Your task to perform on an android device: Open calendar and show me the first week of next month Image 0: 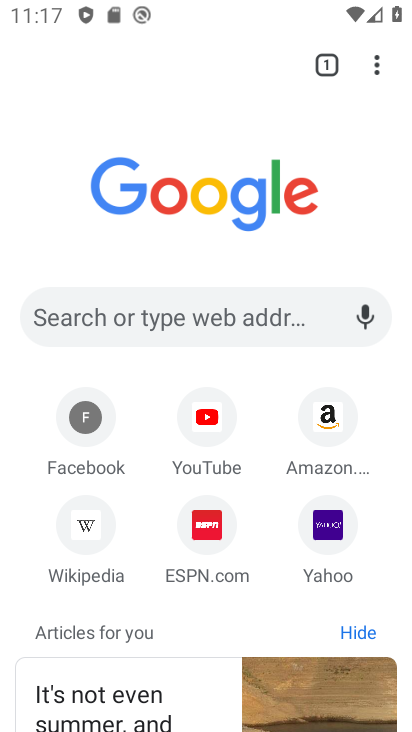
Step 0: press home button
Your task to perform on an android device: Open calendar and show me the first week of next month Image 1: 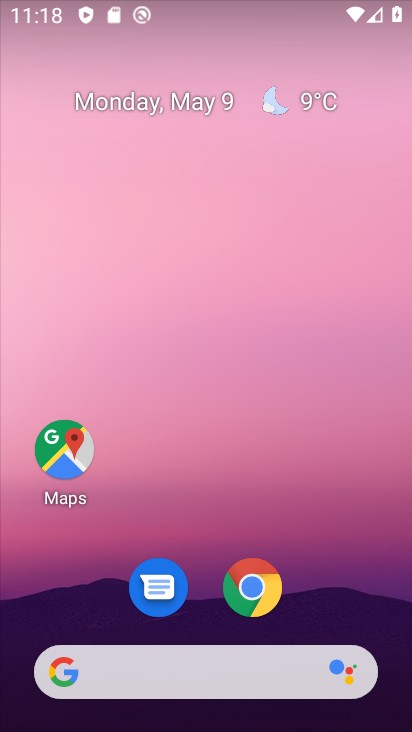
Step 1: drag from (213, 610) to (256, 298)
Your task to perform on an android device: Open calendar and show me the first week of next month Image 2: 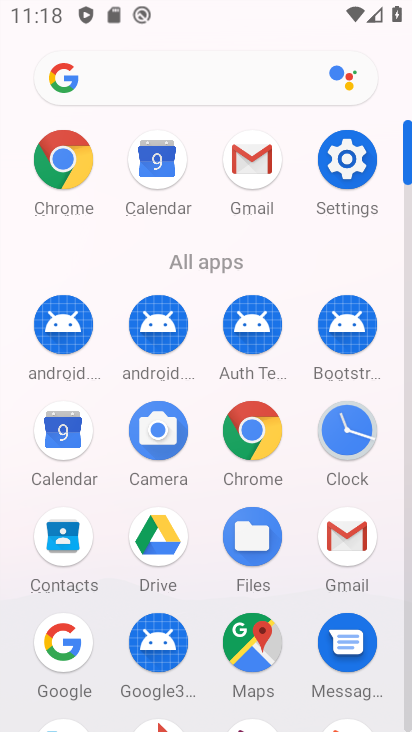
Step 2: click (56, 441)
Your task to perform on an android device: Open calendar and show me the first week of next month Image 3: 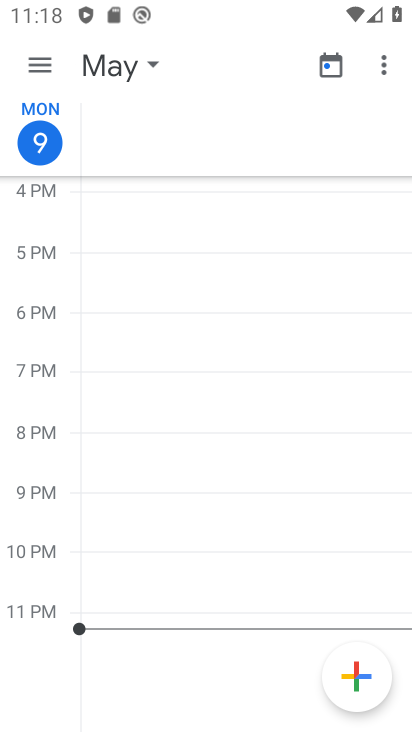
Step 3: click (120, 62)
Your task to perform on an android device: Open calendar and show me the first week of next month Image 4: 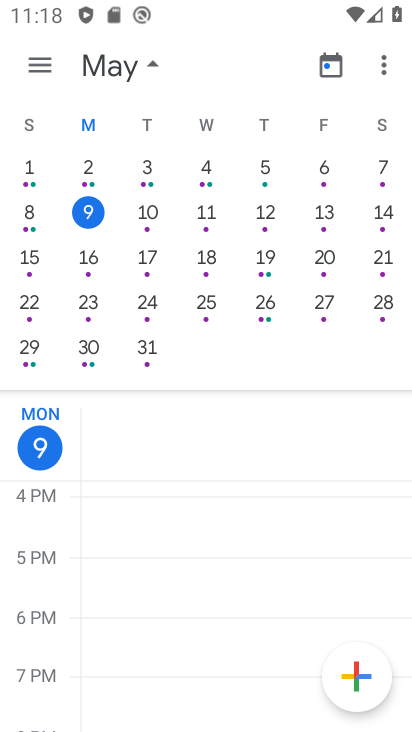
Step 4: drag from (394, 239) to (159, 217)
Your task to perform on an android device: Open calendar and show me the first week of next month Image 5: 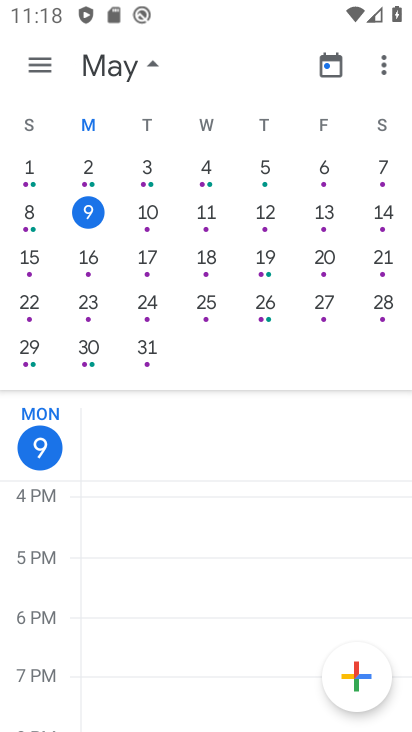
Step 5: click (79, 167)
Your task to perform on an android device: Open calendar and show me the first week of next month Image 6: 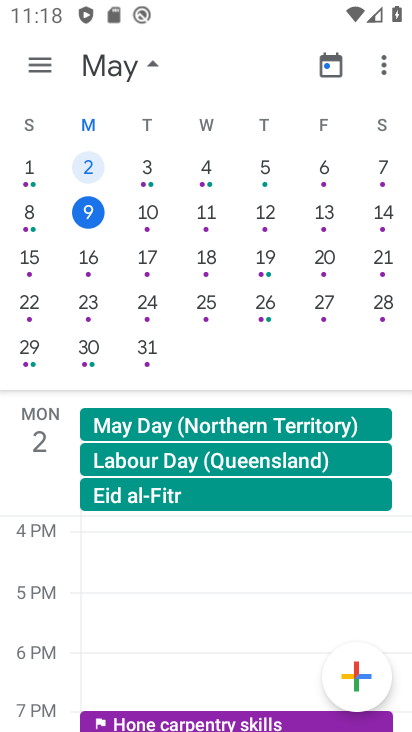
Step 6: drag from (402, 184) to (9, 185)
Your task to perform on an android device: Open calendar and show me the first week of next month Image 7: 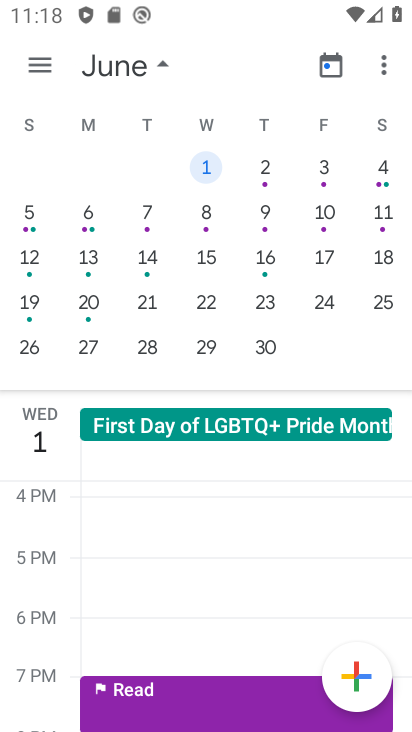
Step 7: click (21, 67)
Your task to perform on an android device: Open calendar and show me the first week of next month Image 8: 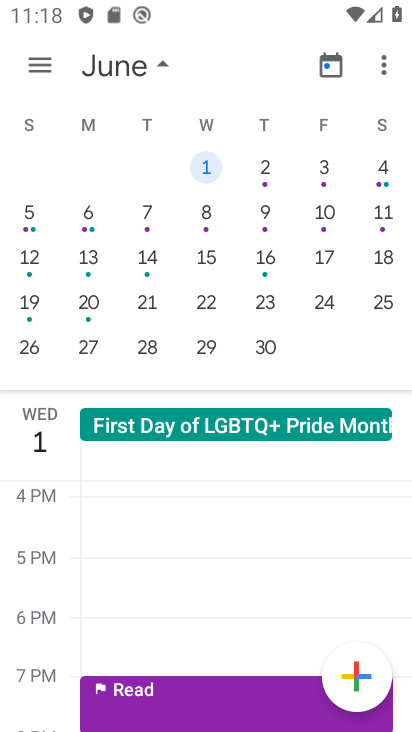
Step 8: click (29, 61)
Your task to perform on an android device: Open calendar and show me the first week of next month Image 9: 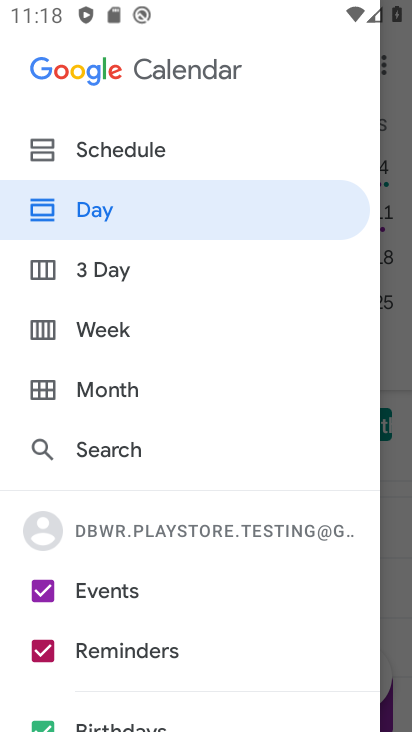
Step 9: click (112, 332)
Your task to perform on an android device: Open calendar and show me the first week of next month Image 10: 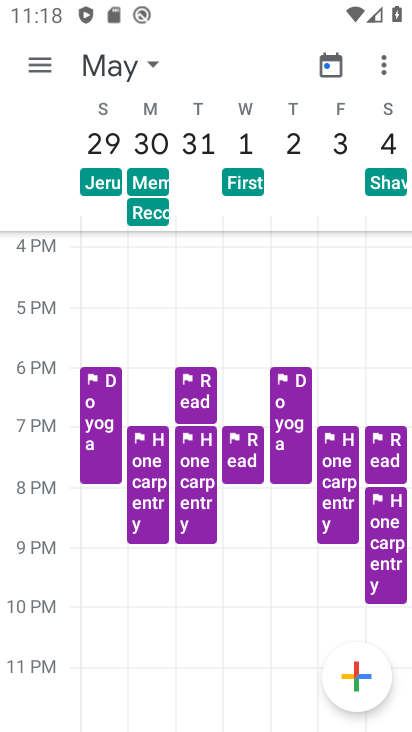
Step 10: task complete